Your task to perform on an android device: View the shopping cart on ebay. Add lg ultragear to the cart on ebay, then select checkout. Image 0: 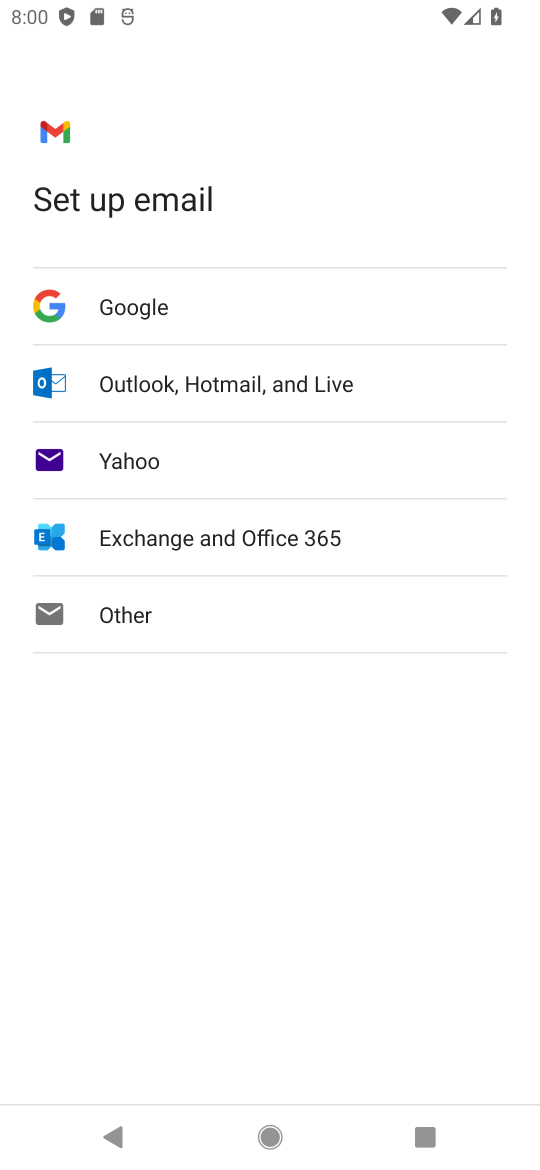
Step 0: press home button
Your task to perform on an android device: View the shopping cart on ebay. Add lg ultragear to the cart on ebay, then select checkout. Image 1: 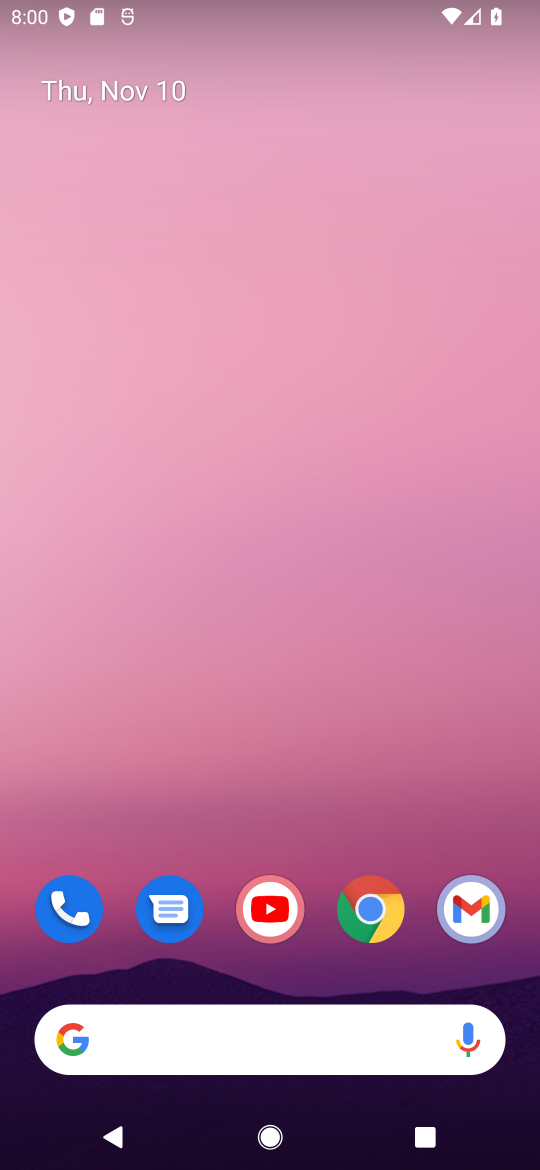
Step 1: drag from (264, 966) to (226, 384)
Your task to perform on an android device: View the shopping cart on ebay. Add lg ultragear to the cart on ebay, then select checkout. Image 2: 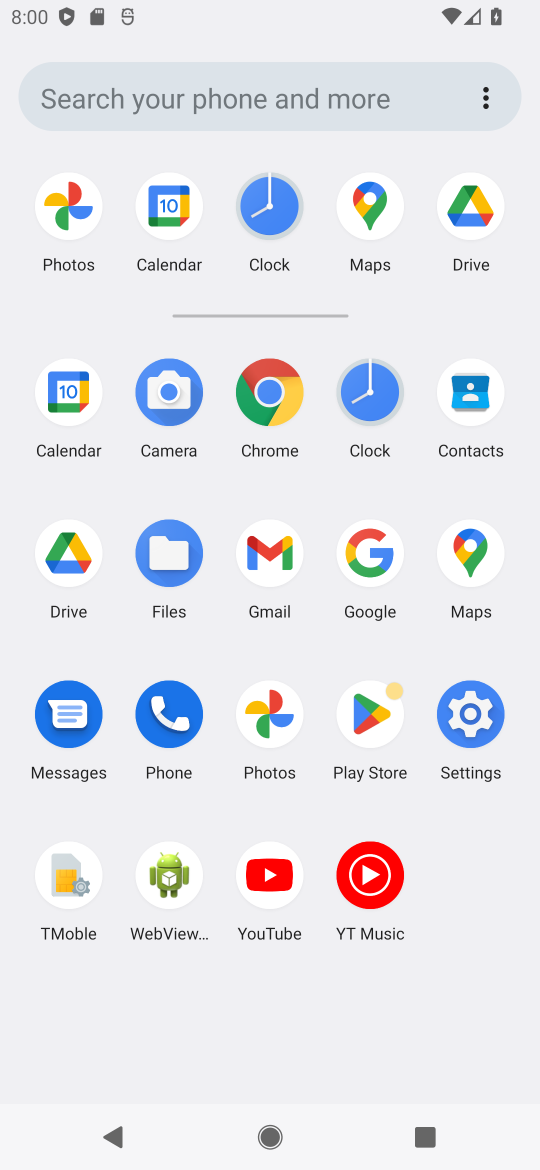
Step 2: click (358, 543)
Your task to perform on an android device: View the shopping cart on ebay. Add lg ultragear to the cart on ebay, then select checkout. Image 3: 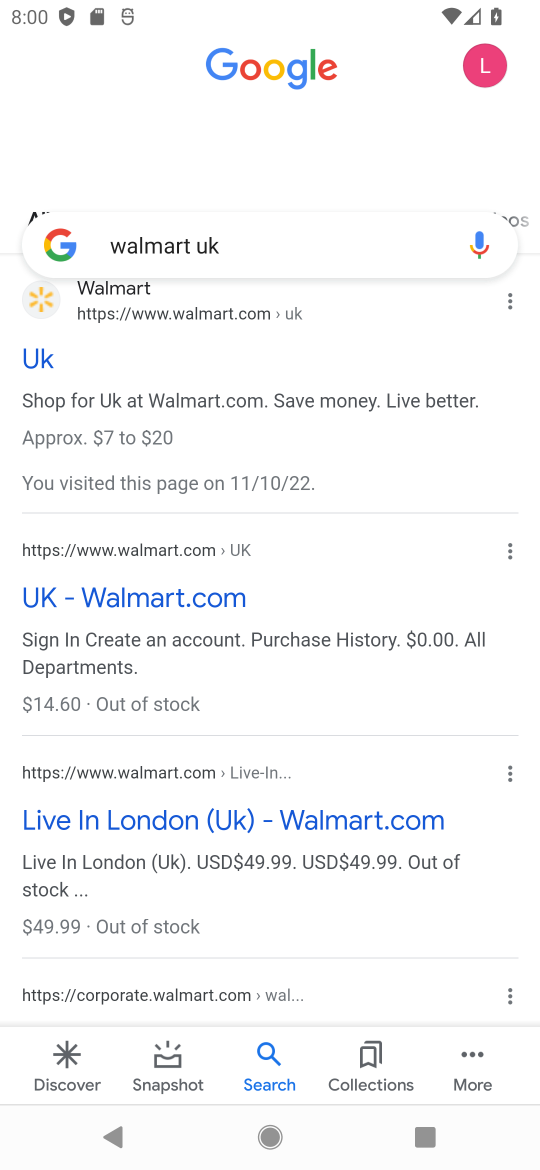
Step 3: click (261, 247)
Your task to perform on an android device: View the shopping cart on ebay. Add lg ultragear to the cart on ebay, then select checkout. Image 4: 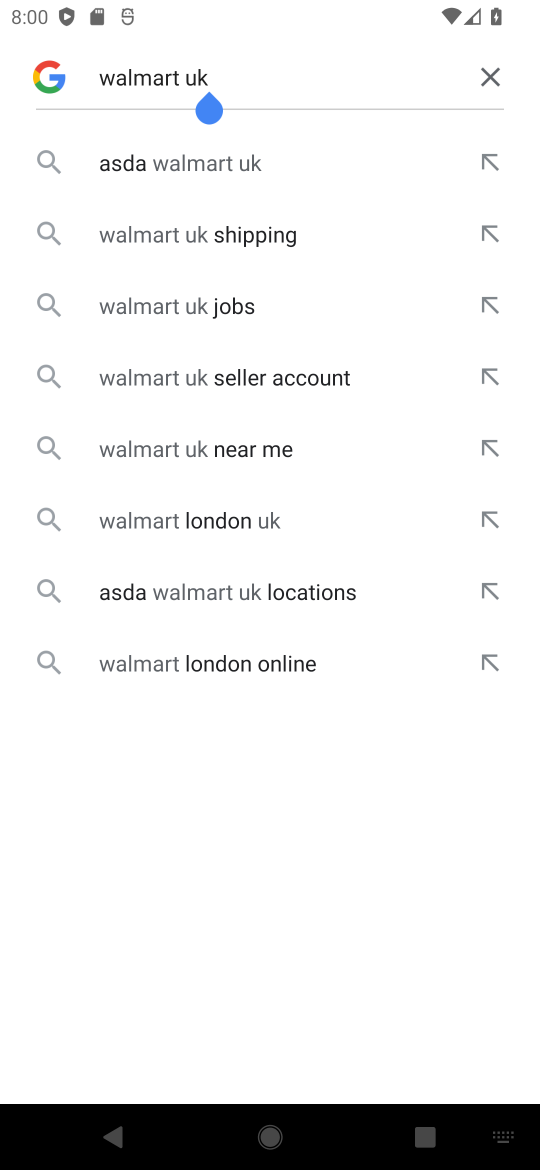
Step 4: click (468, 68)
Your task to perform on an android device: View the shopping cart on ebay. Add lg ultragear to the cart on ebay, then select checkout. Image 5: 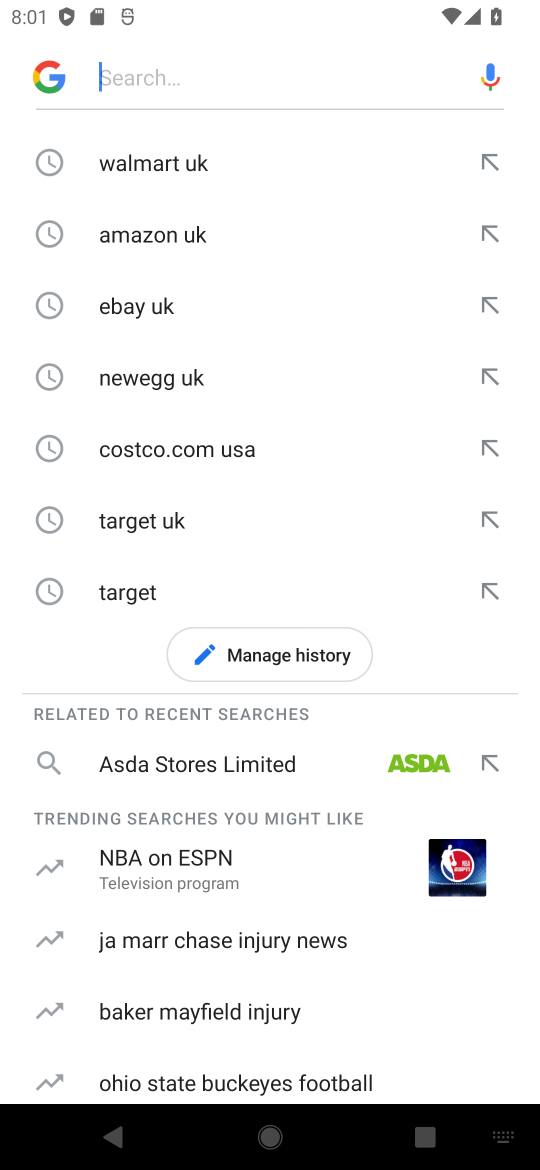
Step 5: click (255, 74)
Your task to perform on an android device: View the shopping cart on ebay. Add lg ultragear to the cart on ebay, then select checkout. Image 6: 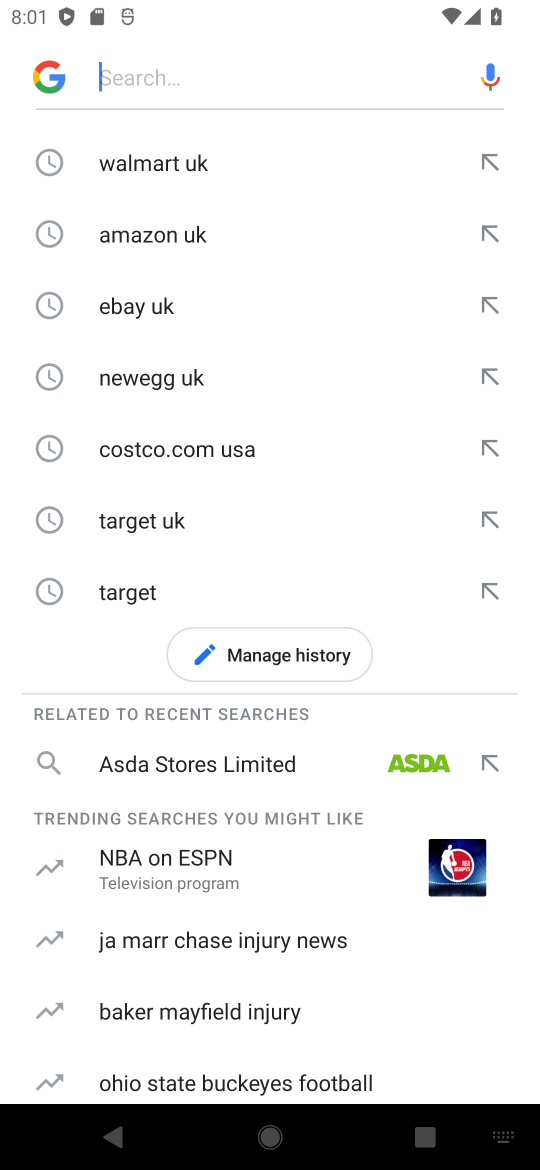
Step 6: type "ebay "
Your task to perform on an android device: View the shopping cart on ebay. Add lg ultragear to the cart on ebay, then select checkout. Image 7: 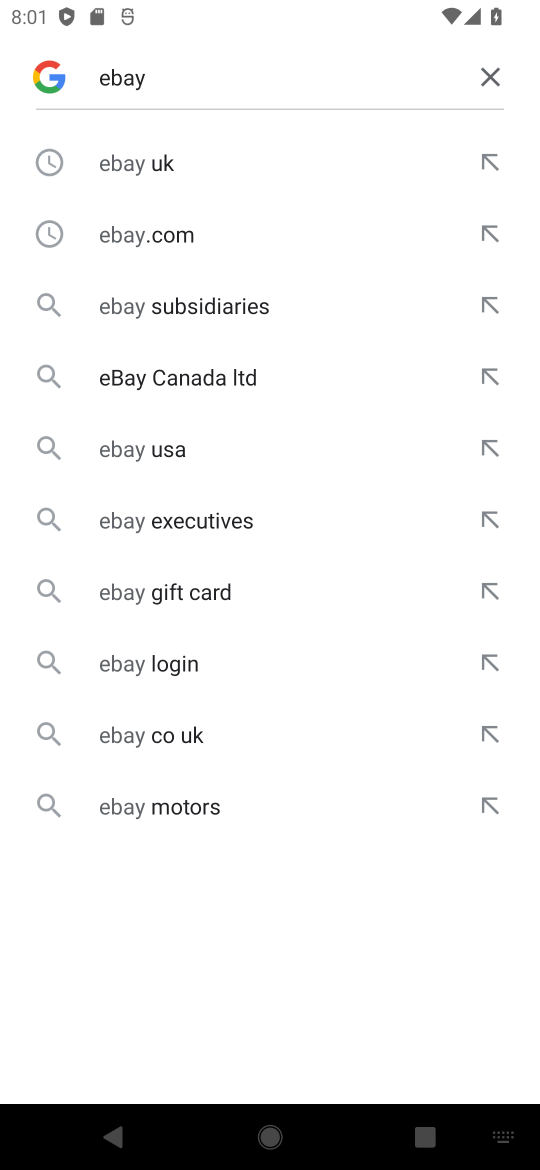
Step 7: click (121, 166)
Your task to perform on an android device: View the shopping cart on ebay. Add lg ultragear to the cart on ebay, then select checkout. Image 8: 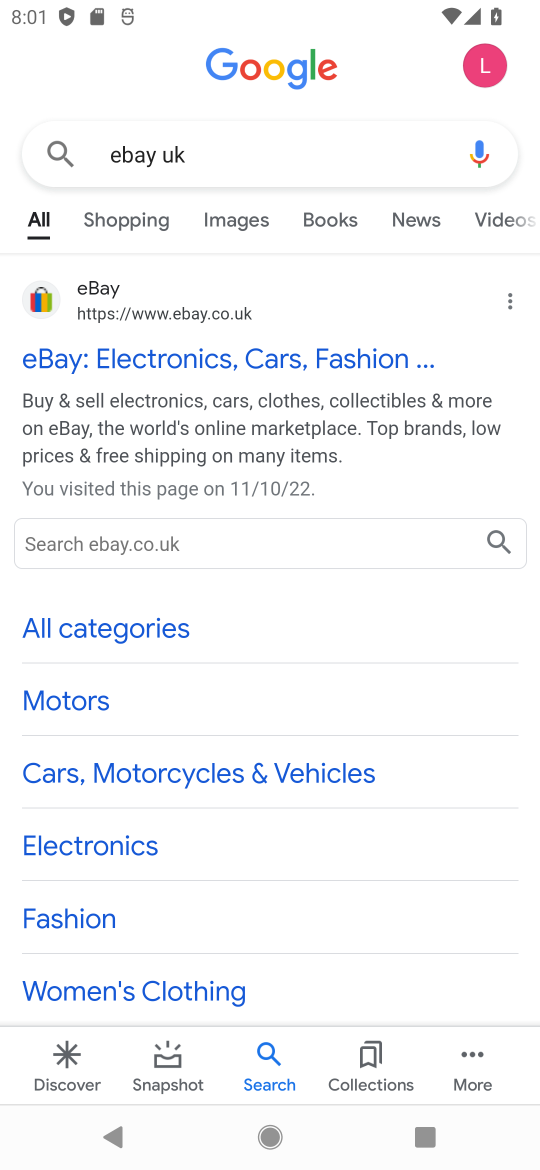
Step 8: click (41, 286)
Your task to perform on an android device: View the shopping cart on ebay. Add lg ultragear to the cart on ebay, then select checkout. Image 9: 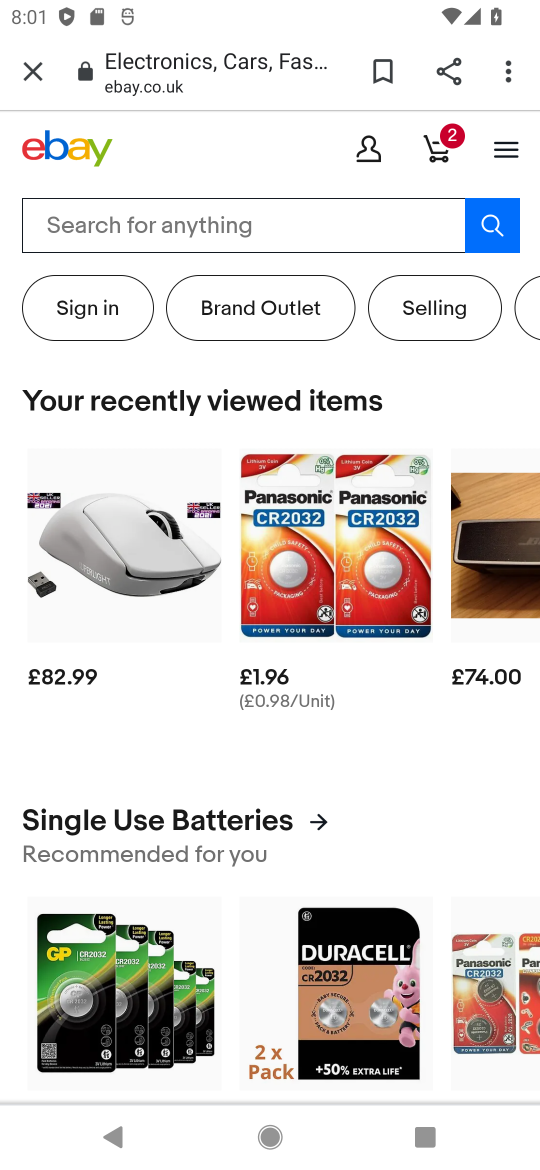
Step 9: click (219, 219)
Your task to perform on an android device: View the shopping cart on ebay. Add lg ultragear to the cart on ebay, then select checkout. Image 10: 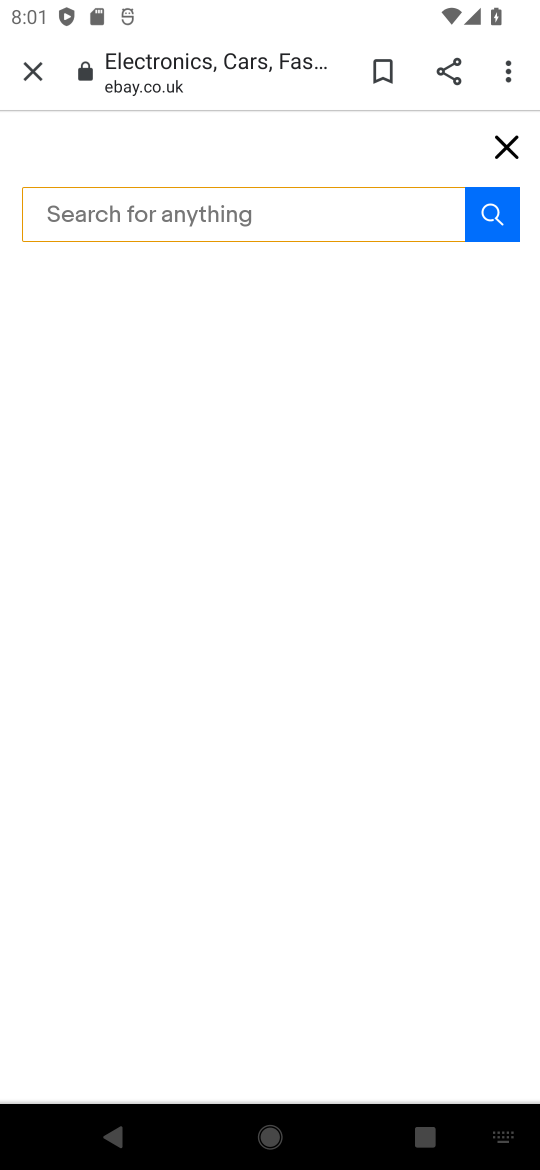
Step 10: click (198, 204)
Your task to perform on an android device: View the shopping cart on ebay. Add lg ultragear to the cart on ebay, then select checkout. Image 11: 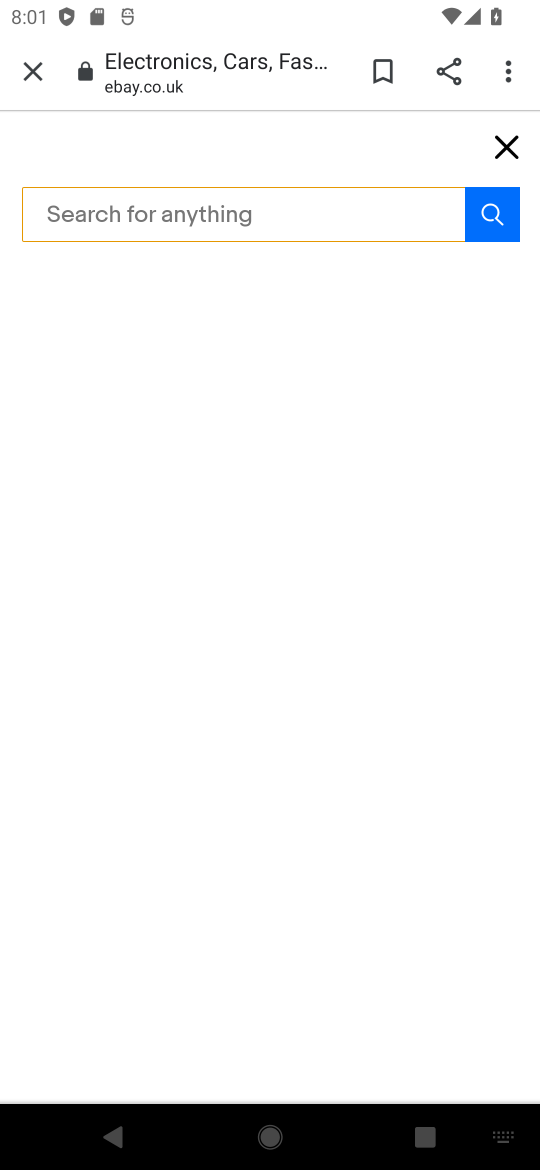
Step 11: type "ultragear  "
Your task to perform on an android device: View the shopping cart on ebay. Add lg ultragear to the cart on ebay, then select checkout. Image 12: 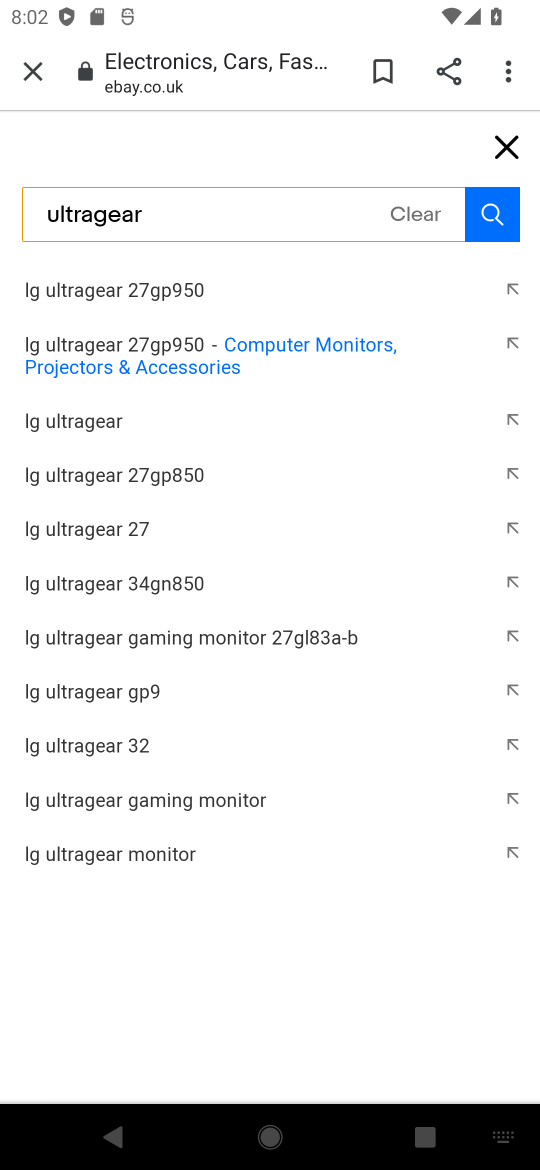
Step 12: click (66, 295)
Your task to perform on an android device: View the shopping cart on ebay. Add lg ultragear to the cart on ebay, then select checkout. Image 13: 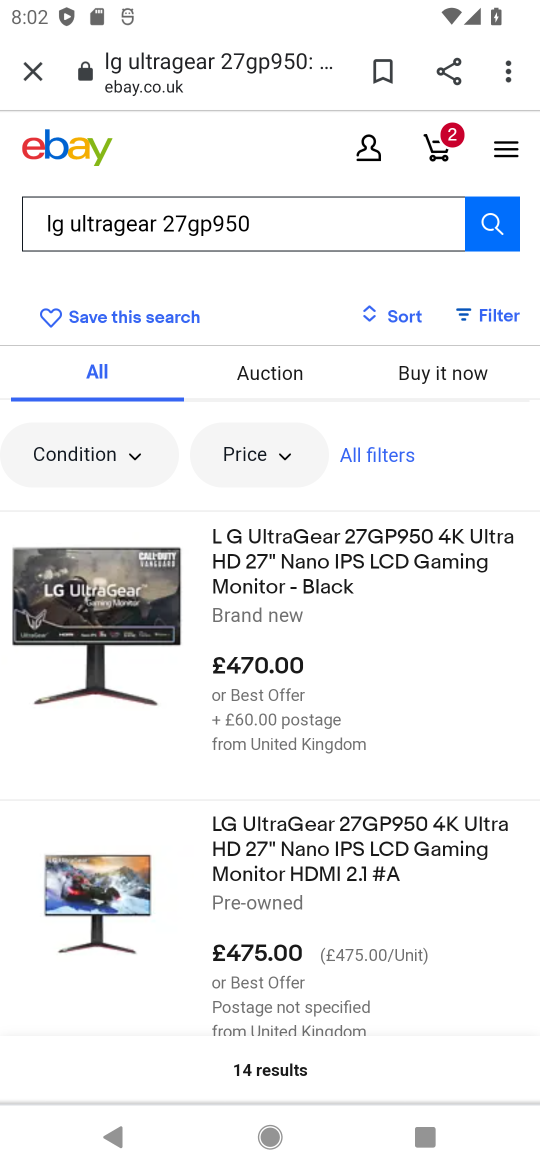
Step 13: click (391, 561)
Your task to perform on an android device: View the shopping cart on ebay. Add lg ultragear to the cart on ebay, then select checkout. Image 14: 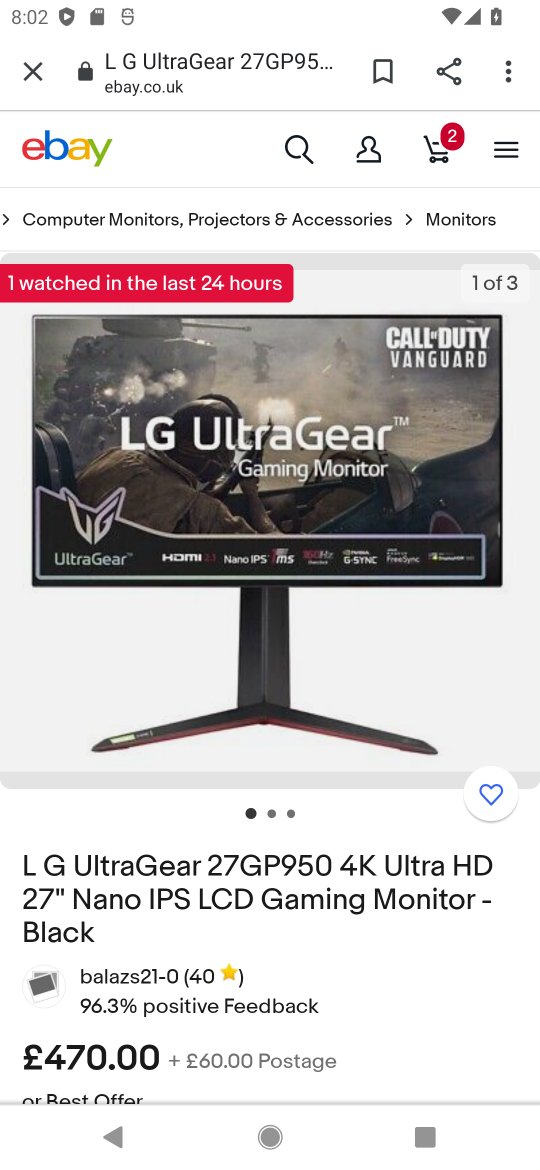
Step 14: drag from (240, 992) to (268, 272)
Your task to perform on an android device: View the shopping cart on ebay. Add lg ultragear to the cart on ebay, then select checkout. Image 15: 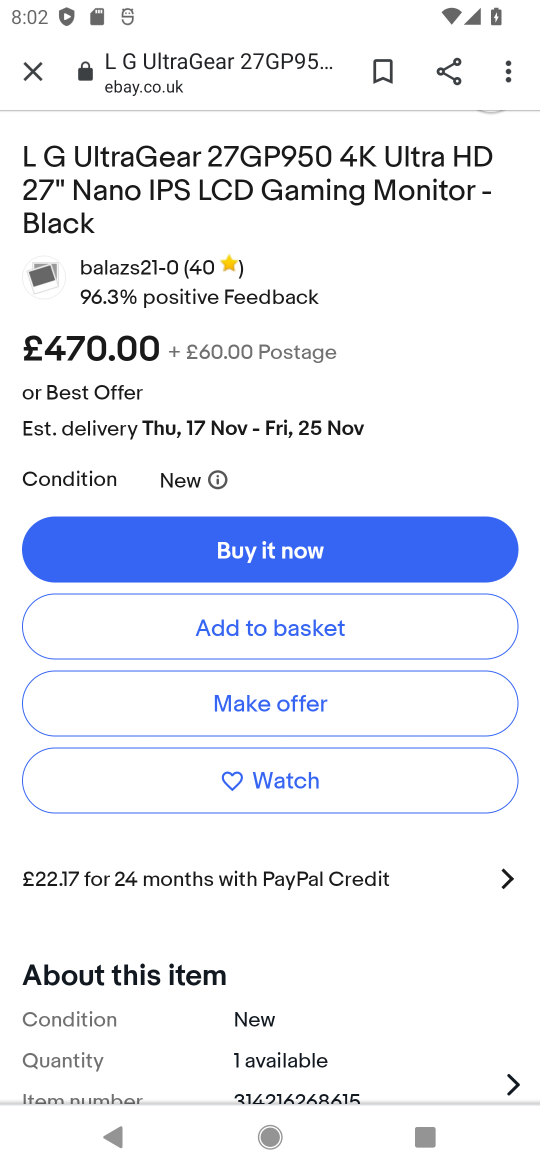
Step 15: click (319, 617)
Your task to perform on an android device: View the shopping cart on ebay. Add lg ultragear to the cart on ebay, then select checkout. Image 16: 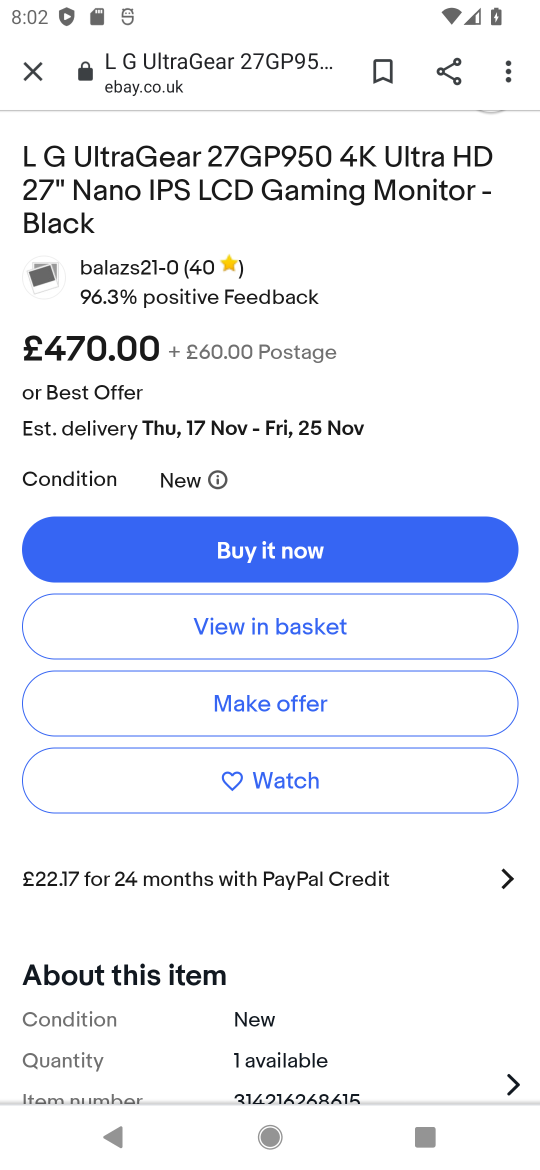
Step 16: task complete